Your task to perform on an android device: Play the last video I watched on Youtube Image 0: 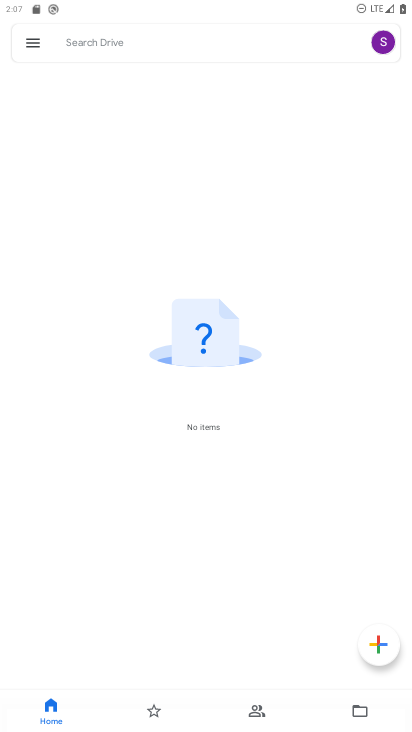
Step 0: press home button
Your task to perform on an android device: Play the last video I watched on Youtube Image 1: 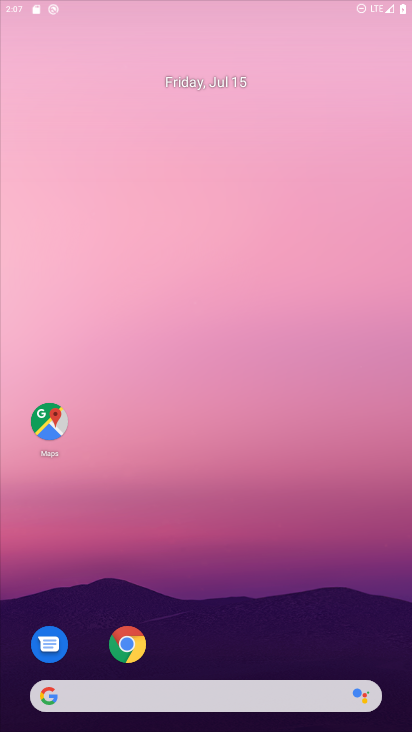
Step 1: drag from (55, 569) to (300, 66)
Your task to perform on an android device: Play the last video I watched on Youtube Image 2: 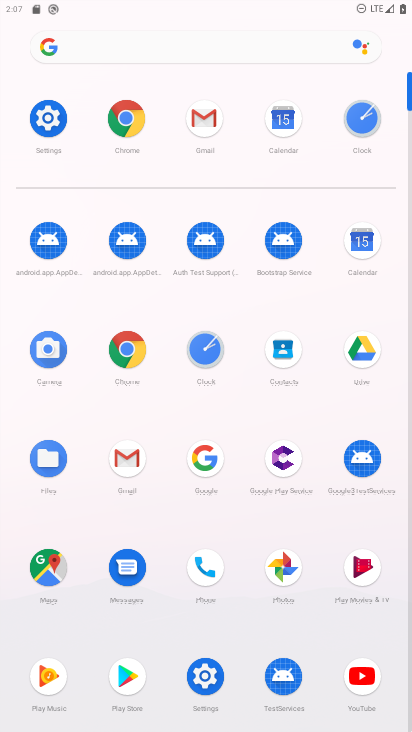
Step 2: click (365, 681)
Your task to perform on an android device: Play the last video I watched on Youtube Image 3: 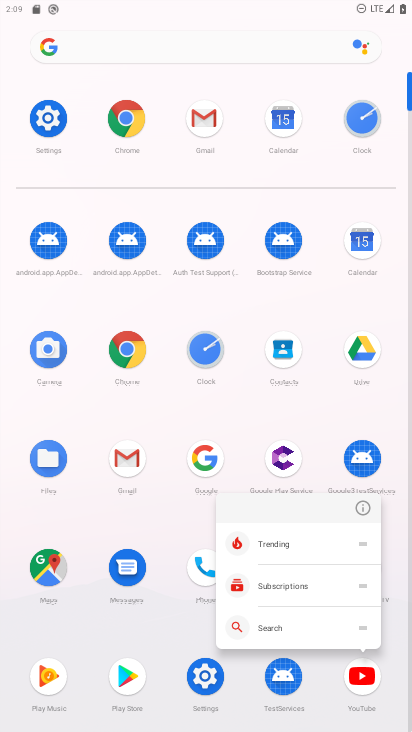
Step 3: click (369, 678)
Your task to perform on an android device: Play the last video I watched on Youtube Image 4: 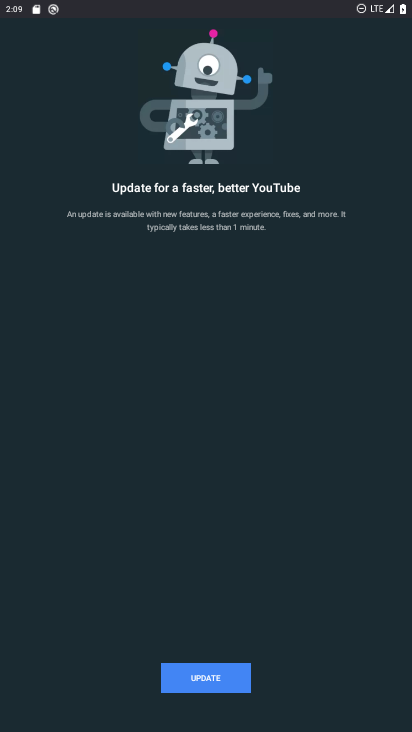
Step 4: task complete